Your task to perform on an android device: Go to battery settings Image 0: 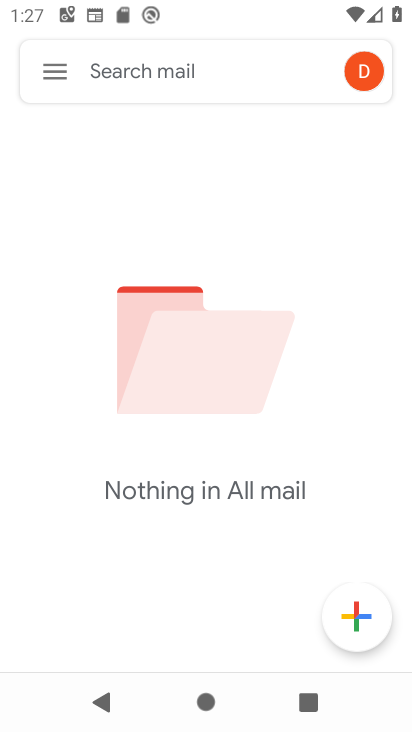
Step 0: press home button
Your task to perform on an android device: Go to battery settings Image 1: 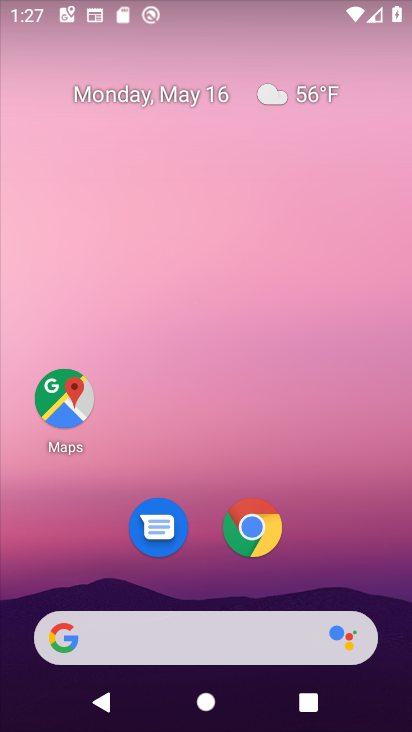
Step 1: drag from (199, 624) to (180, 42)
Your task to perform on an android device: Go to battery settings Image 2: 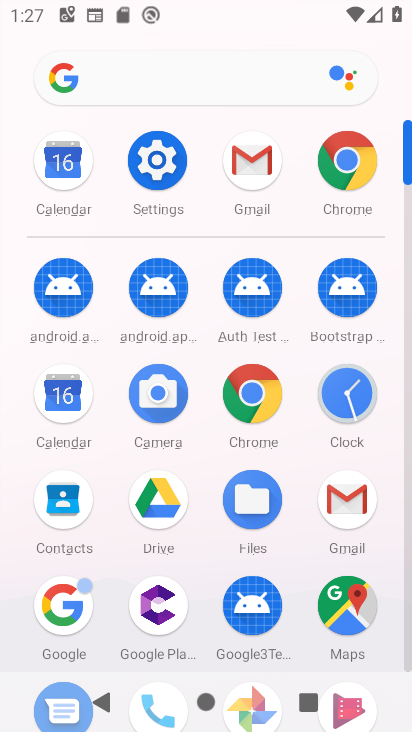
Step 2: click (149, 173)
Your task to perform on an android device: Go to battery settings Image 3: 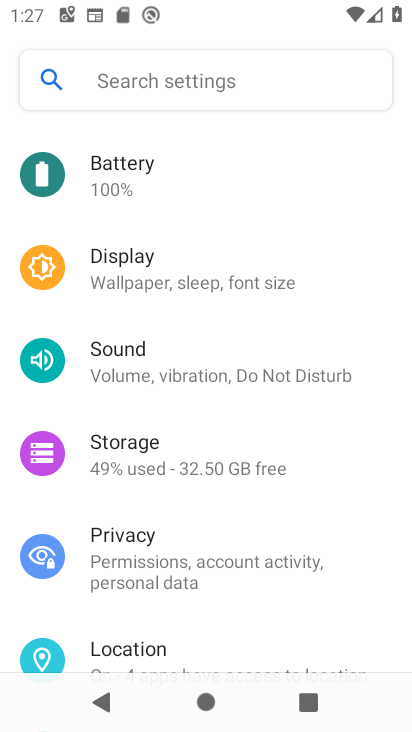
Step 3: click (136, 187)
Your task to perform on an android device: Go to battery settings Image 4: 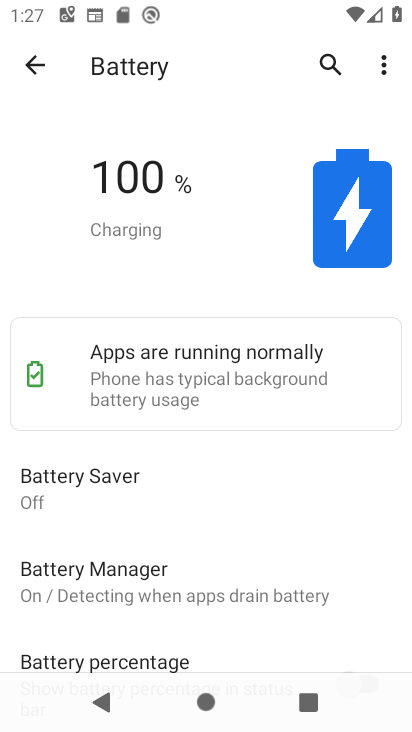
Step 4: task complete